Your task to perform on an android device: Go to battery settings Image 0: 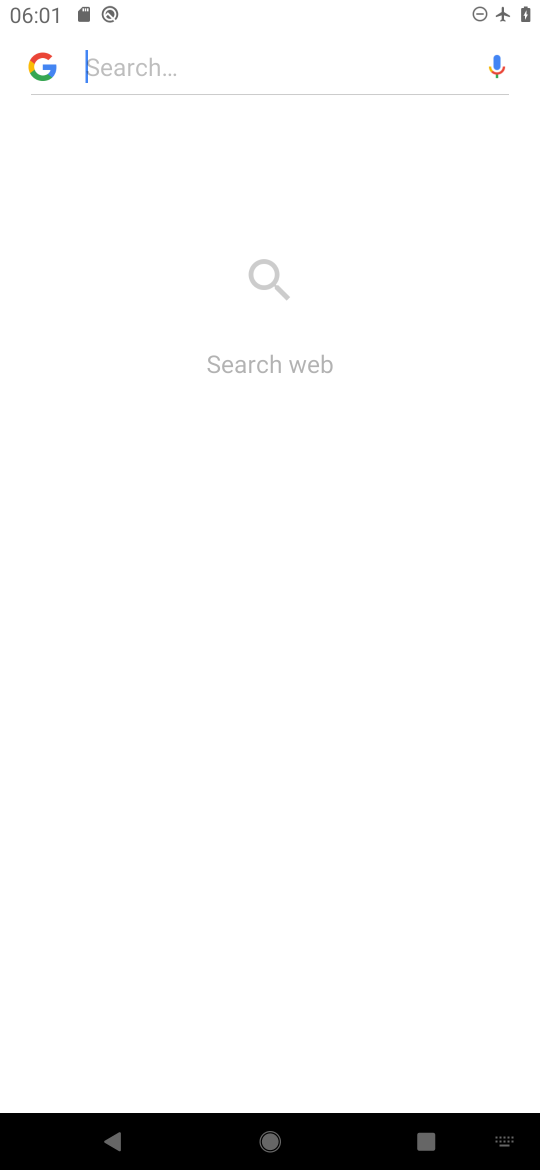
Step 0: press home button
Your task to perform on an android device: Go to battery settings Image 1: 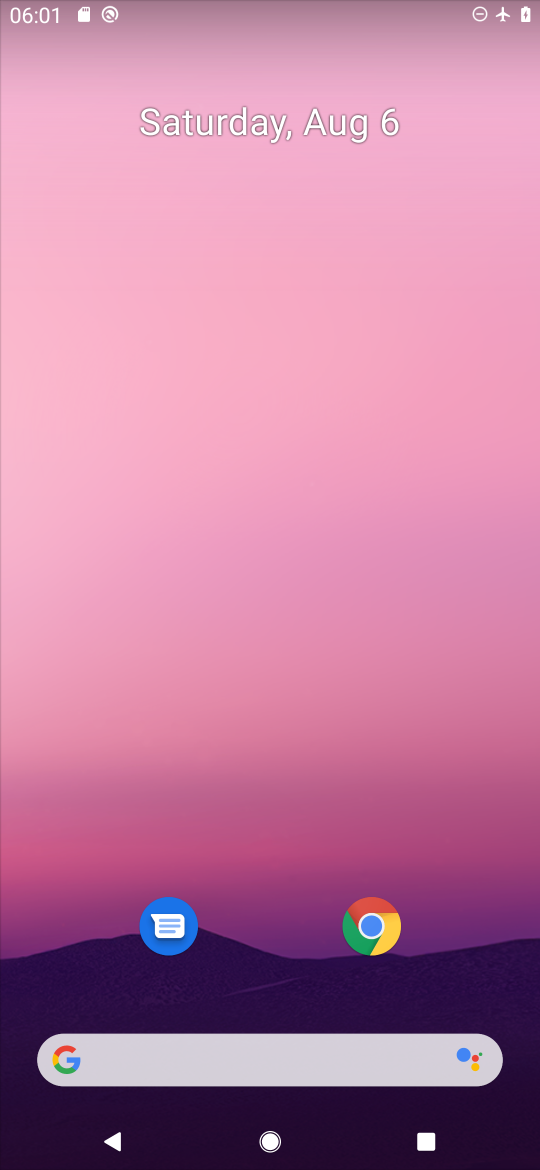
Step 1: drag from (273, 913) to (273, 283)
Your task to perform on an android device: Go to battery settings Image 2: 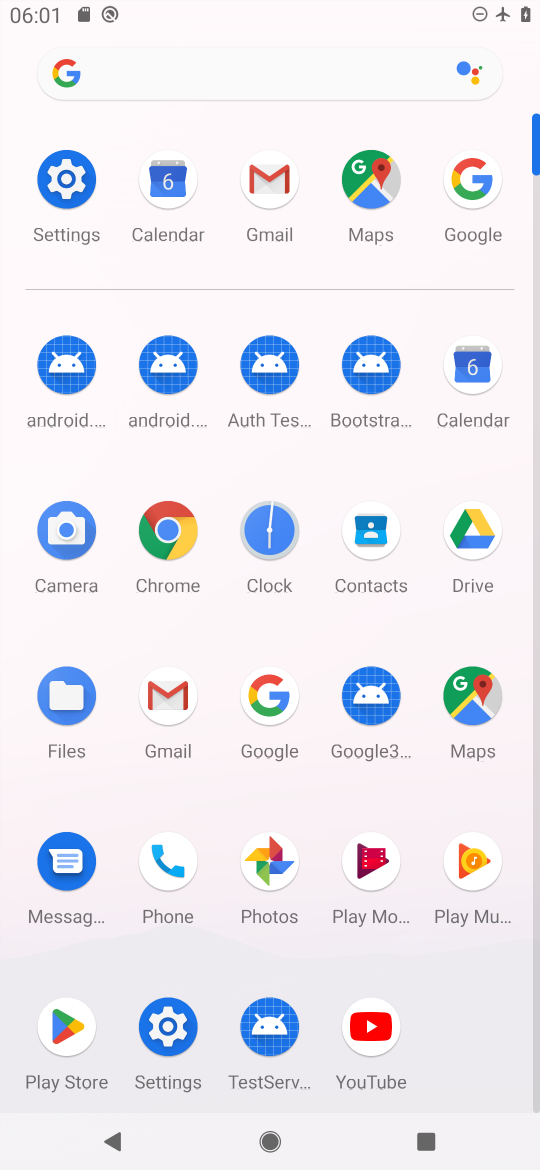
Step 2: click (64, 187)
Your task to perform on an android device: Go to battery settings Image 3: 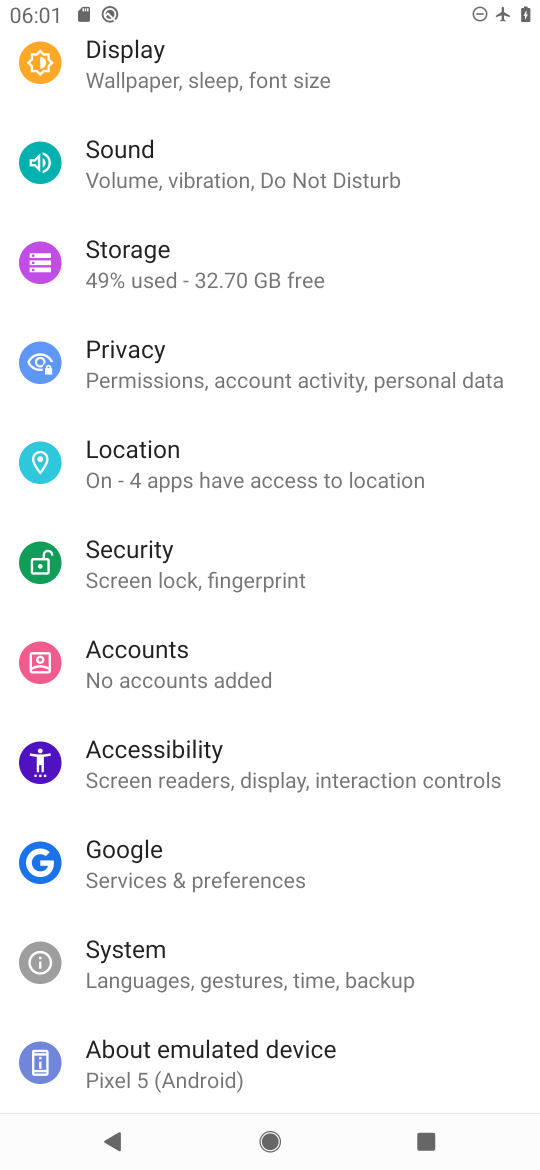
Step 3: drag from (212, 206) to (240, 670)
Your task to perform on an android device: Go to battery settings Image 4: 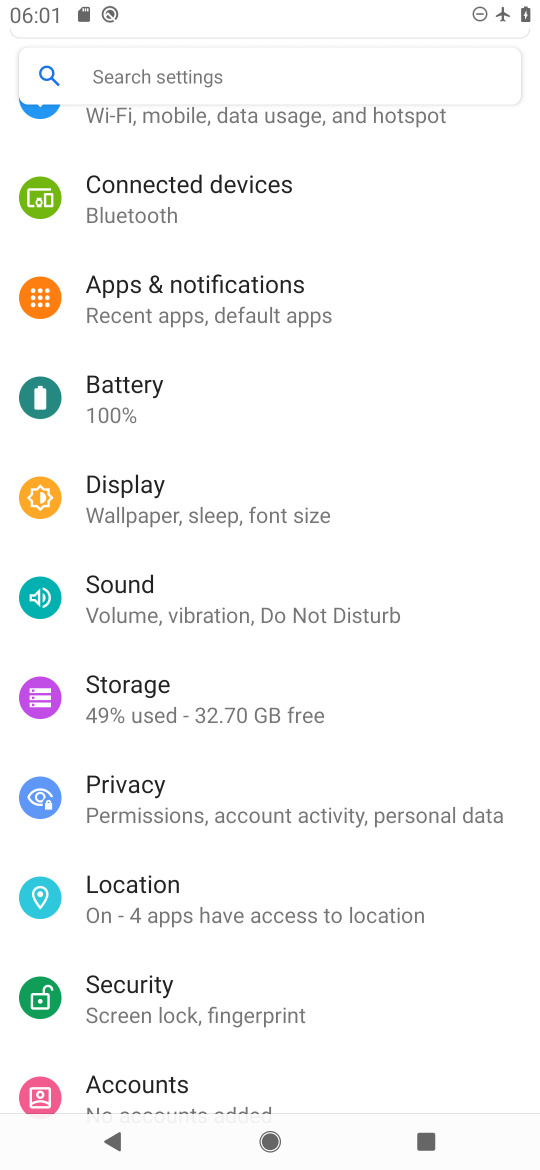
Step 4: click (171, 423)
Your task to perform on an android device: Go to battery settings Image 5: 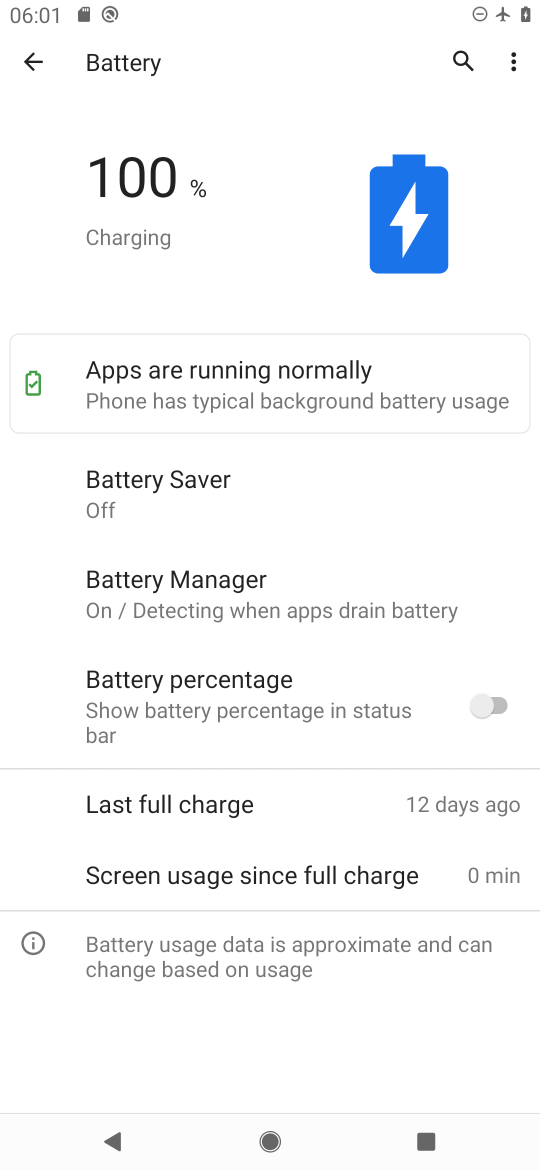
Step 5: task complete